Your task to perform on an android device: Show me popular videos on Youtube Image 0: 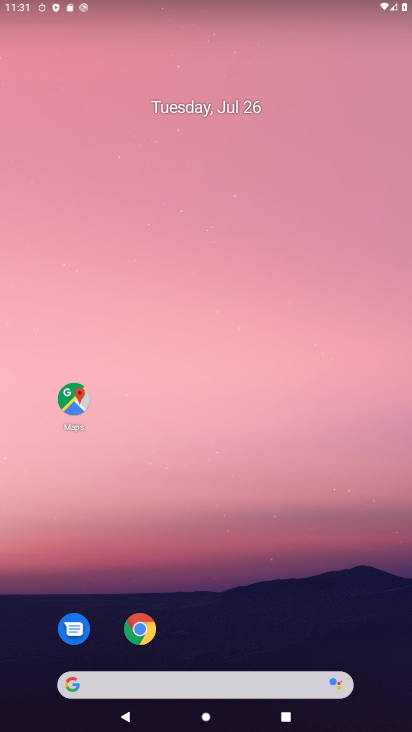
Step 0: drag from (334, 633) to (140, 38)
Your task to perform on an android device: Show me popular videos on Youtube Image 1: 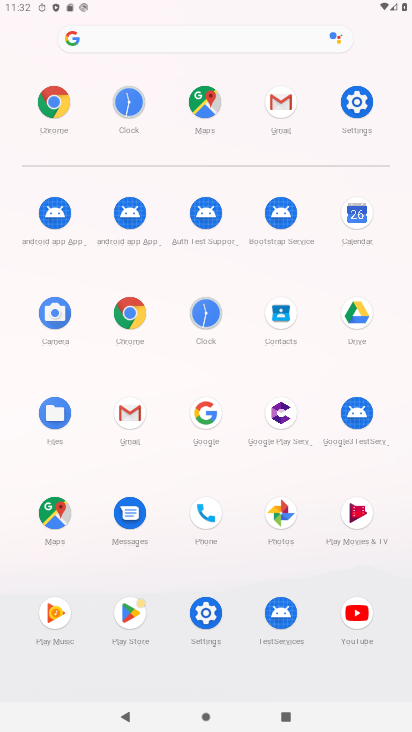
Step 1: click (368, 610)
Your task to perform on an android device: Show me popular videos on Youtube Image 2: 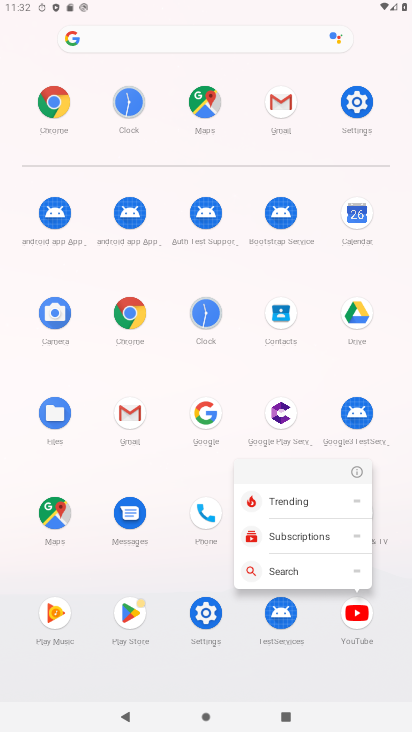
Step 2: click (365, 613)
Your task to perform on an android device: Show me popular videos on Youtube Image 3: 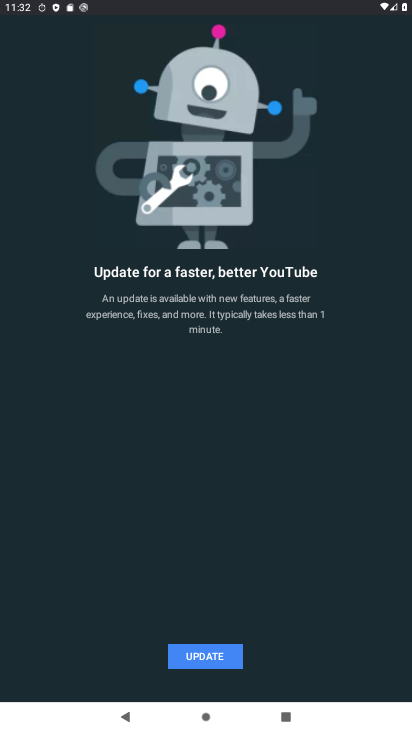
Step 3: click (184, 646)
Your task to perform on an android device: Show me popular videos on Youtube Image 4: 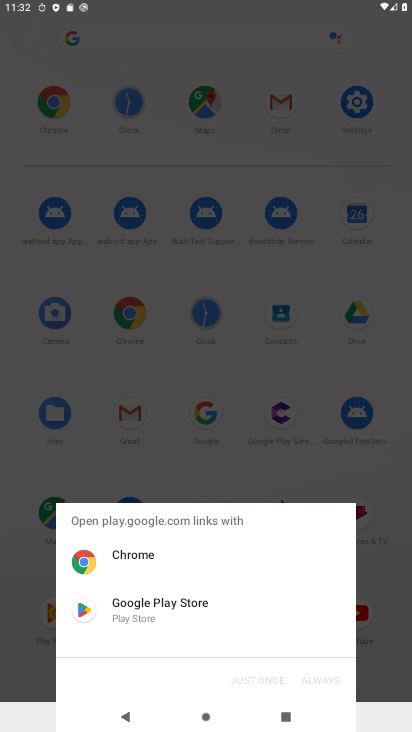
Step 4: click (97, 604)
Your task to perform on an android device: Show me popular videos on Youtube Image 5: 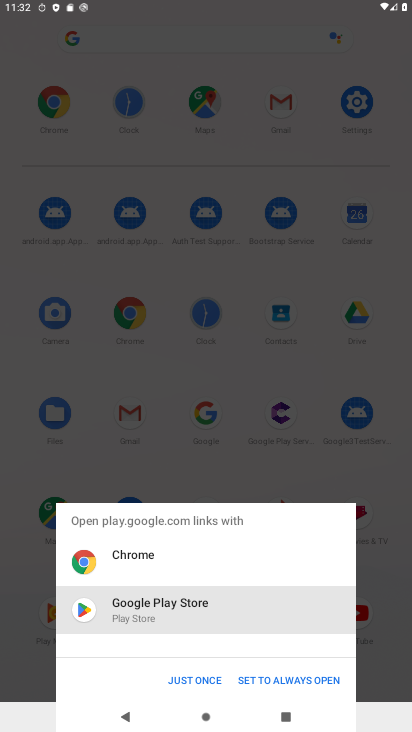
Step 5: click (196, 681)
Your task to perform on an android device: Show me popular videos on Youtube Image 6: 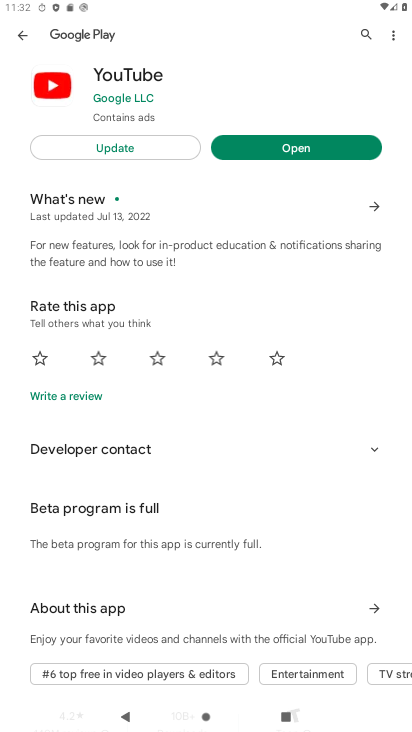
Step 6: click (79, 150)
Your task to perform on an android device: Show me popular videos on Youtube Image 7: 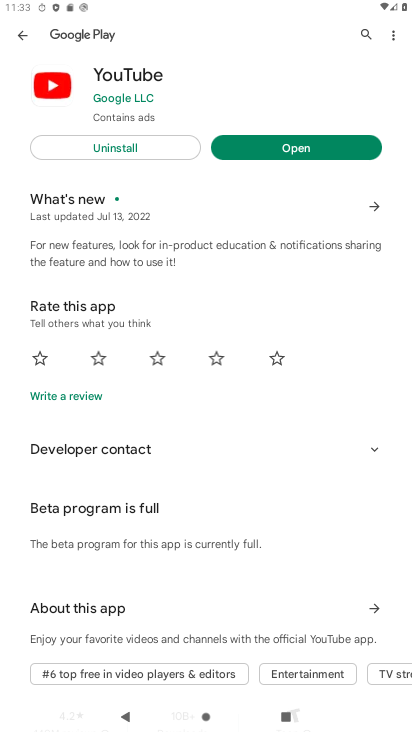
Step 7: task complete